Your task to perform on an android device: open app "Adobe Acrobat Reader" (install if not already installed) and go to login screen Image 0: 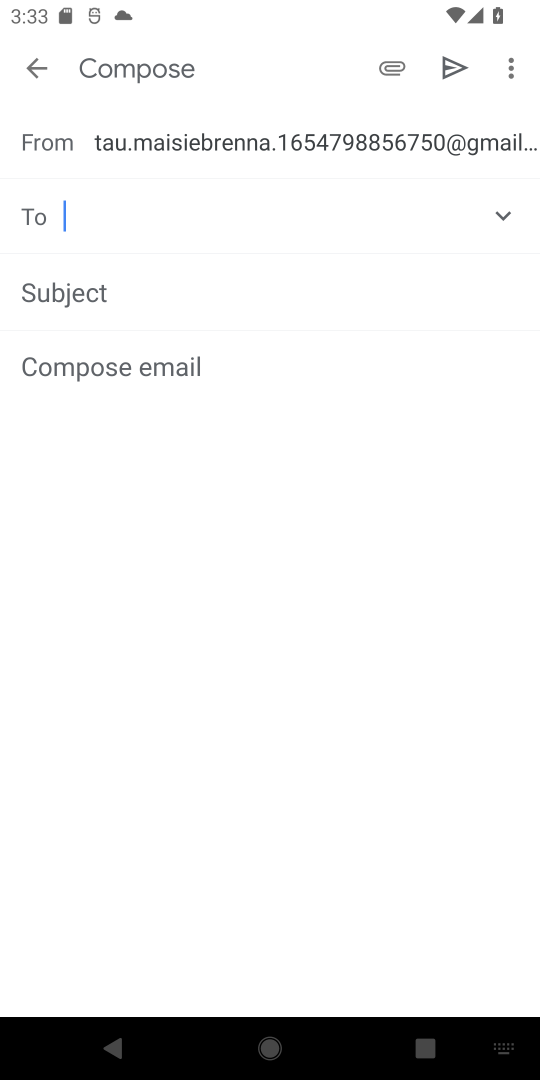
Step 0: press home button
Your task to perform on an android device: open app "Adobe Acrobat Reader" (install if not already installed) and go to login screen Image 1: 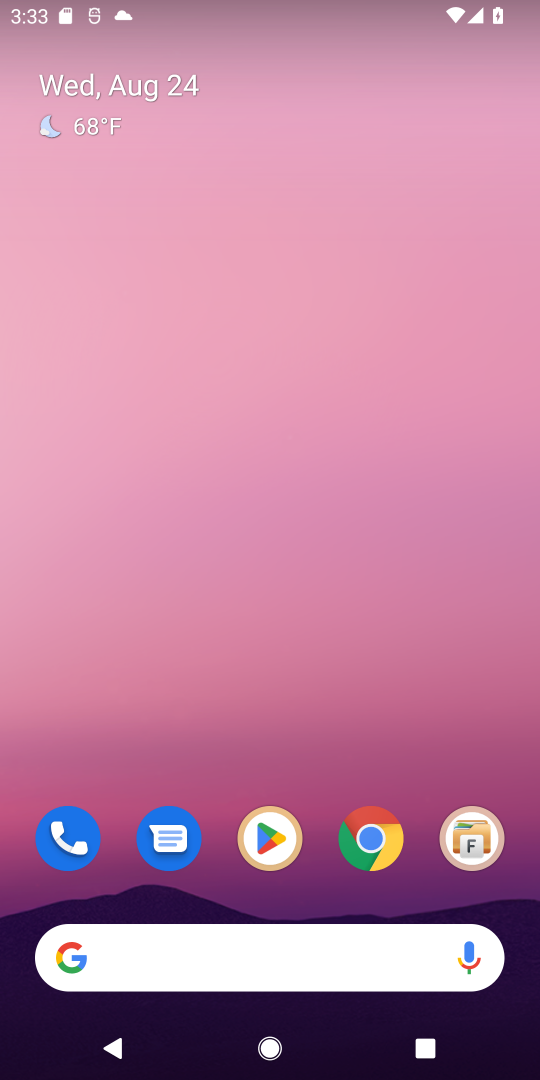
Step 1: click (239, 847)
Your task to perform on an android device: open app "Adobe Acrobat Reader" (install if not already installed) and go to login screen Image 2: 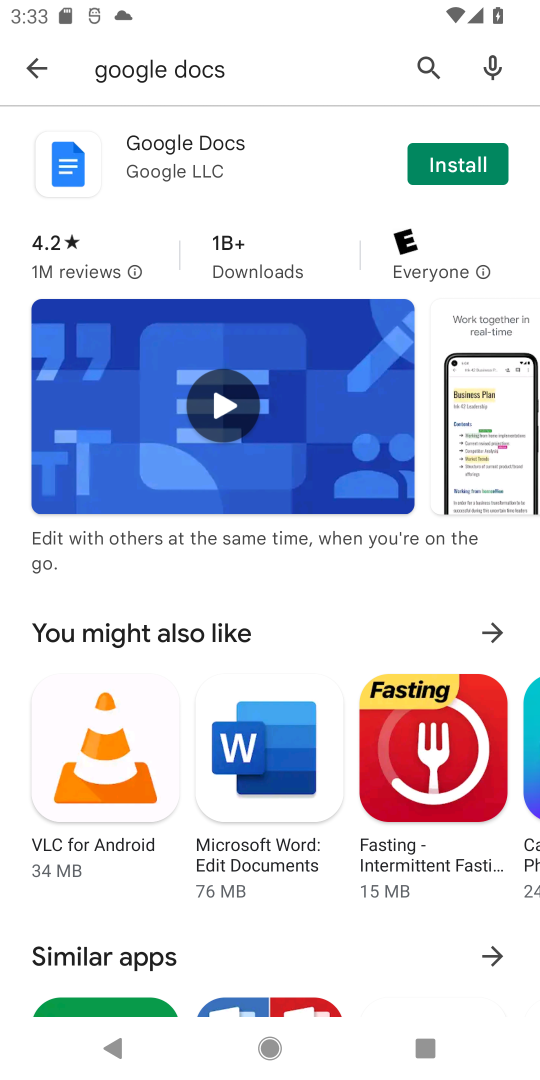
Step 2: click (421, 63)
Your task to perform on an android device: open app "Adobe Acrobat Reader" (install if not already installed) and go to login screen Image 3: 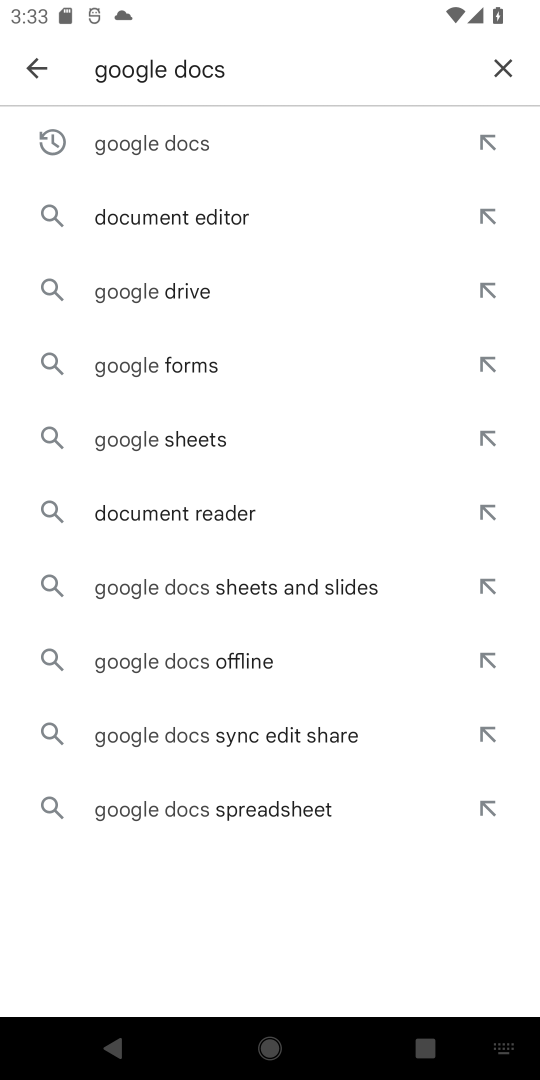
Step 3: click (497, 65)
Your task to perform on an android device: open app "Adobe Acrobat Reader" (install if not already installed) and go to login screen Image 4: 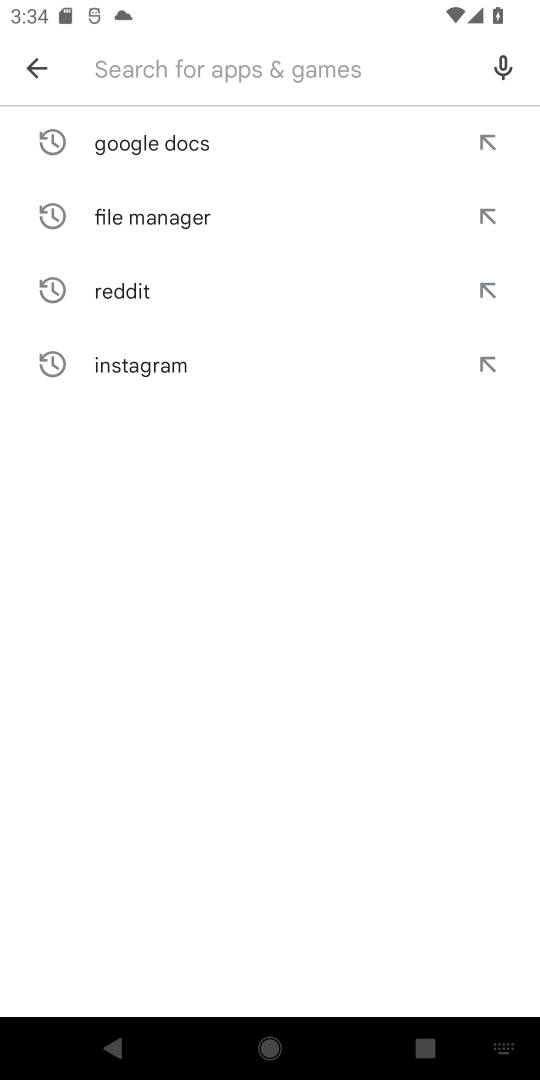
Step 4: type "Adobe Acrobat Reader"
Your task to perform on an android device: open app "Adobe Acrobat Reader" (install if not already installed) and go to login screen Image 5: 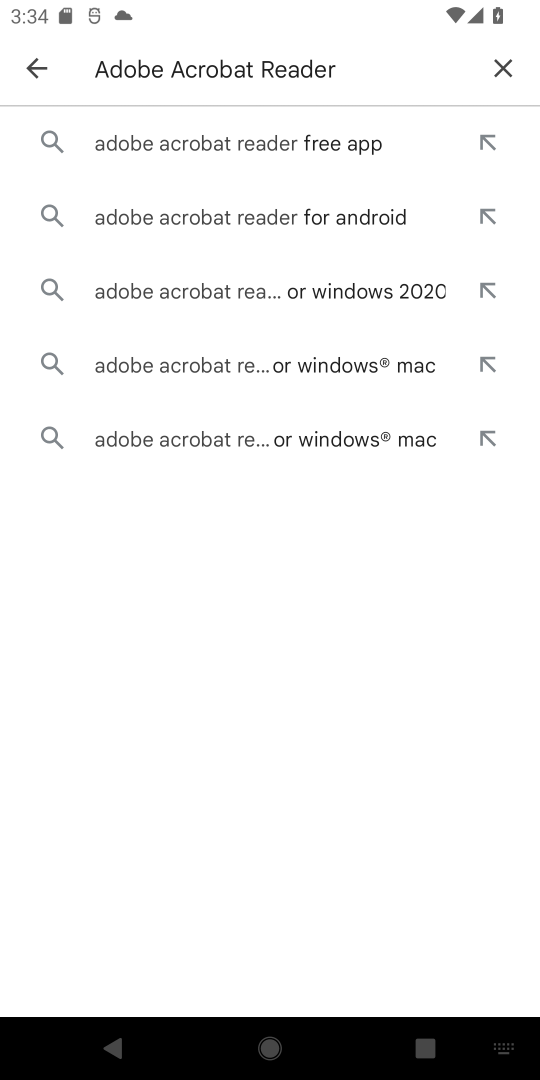
Step 5: click (286, 152)
Your task to perform on an android device: open app "Adobe Acrobat Reader" (install if not already installed) and go to login screen Image 6: 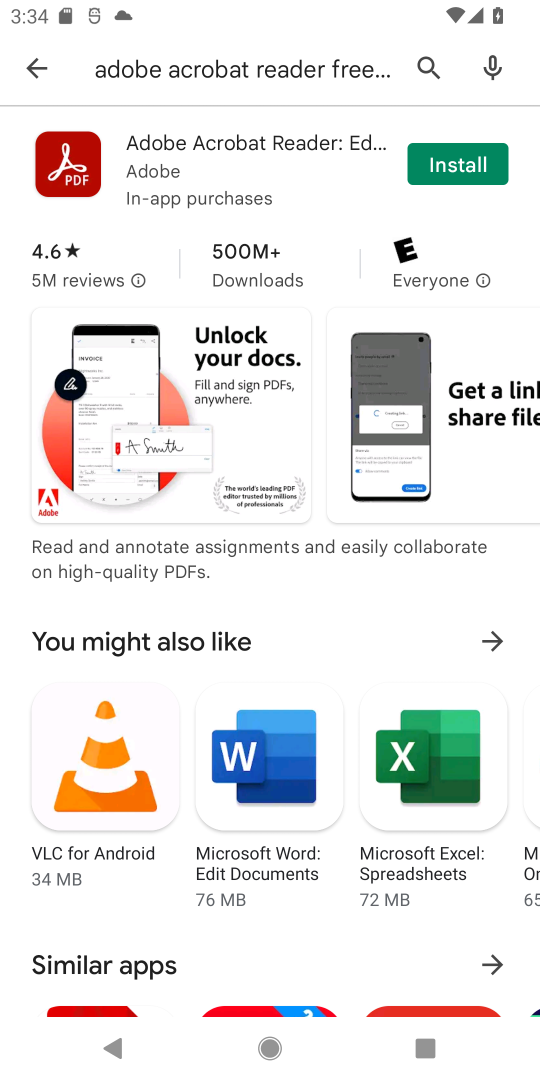
Step 6: click (468, 162)
Your task to perform on an android device: open app "Adobe Acrobat Reader" (install if not already installed) and go to login screen Image 7: 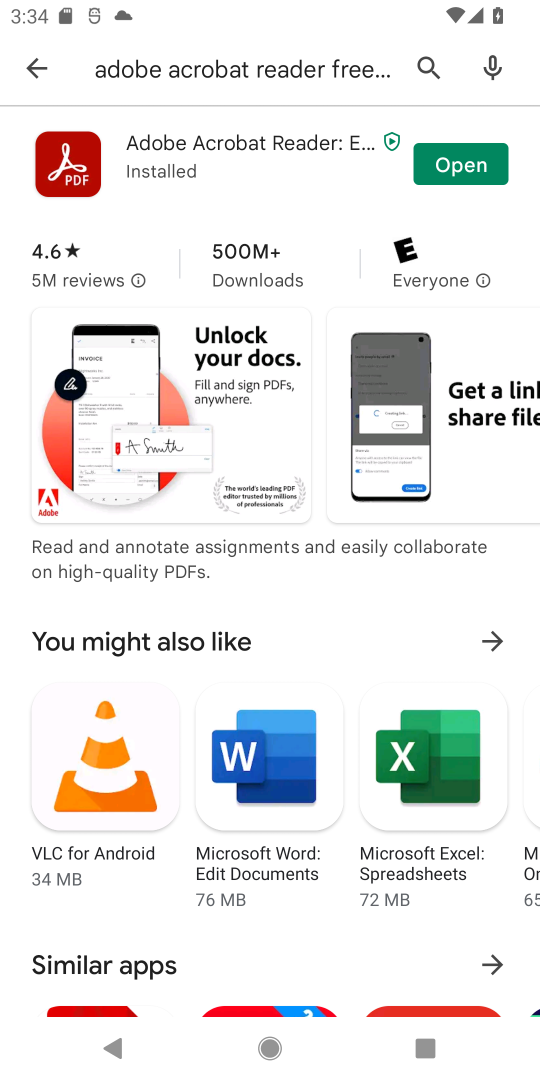
Step 7: click (480, 161)
Your task to perform on an android device: open app "Adobe Acrobat Reader" (install if not already installed) and go to login screen Image 8: 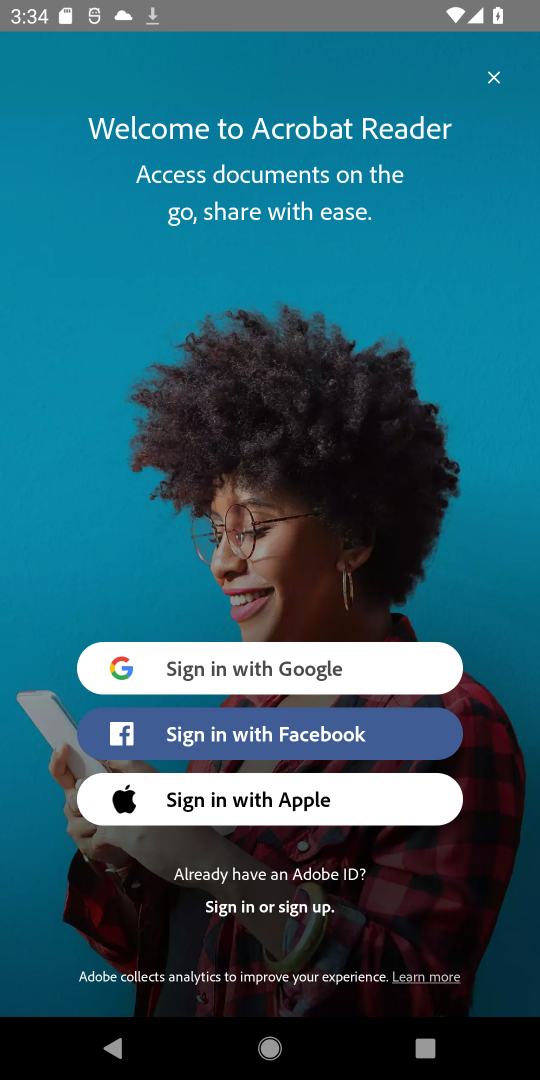
Step 8: click (236, 908)
Your task to perform on an android device: open app "Adobe Acrobat Reader" (install if not already installed) and go to login screen Image 9: 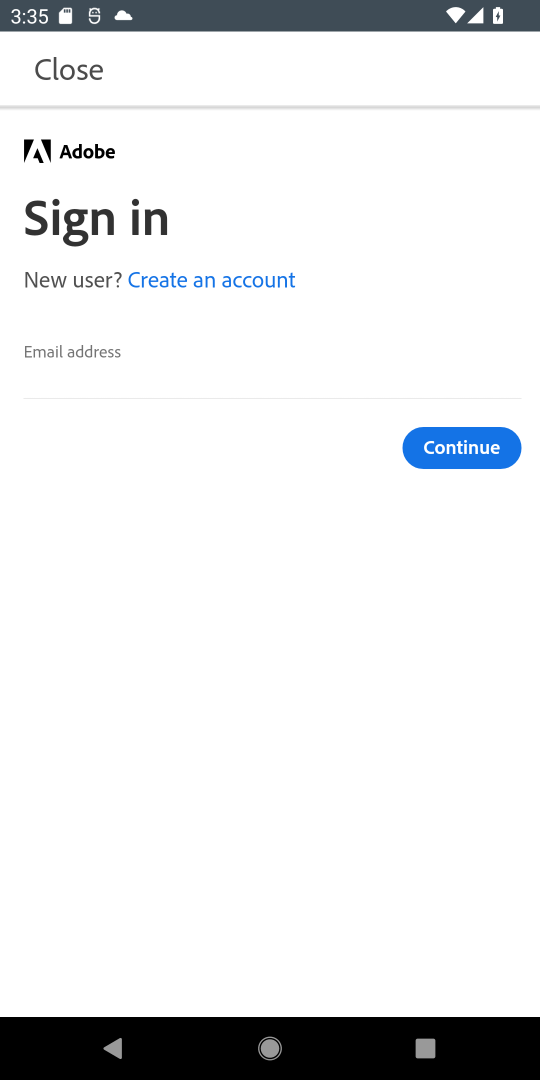
Step 9: task complete